Your task to perform on an android device: all mails in gmail Image 0: 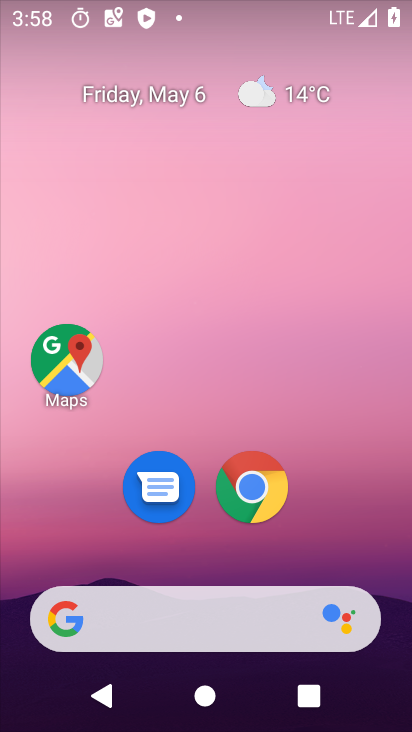
Step 0: drag from (342, 541) to (235, 36)
Your task to perform on an android device: all mails in gmail Image 1: 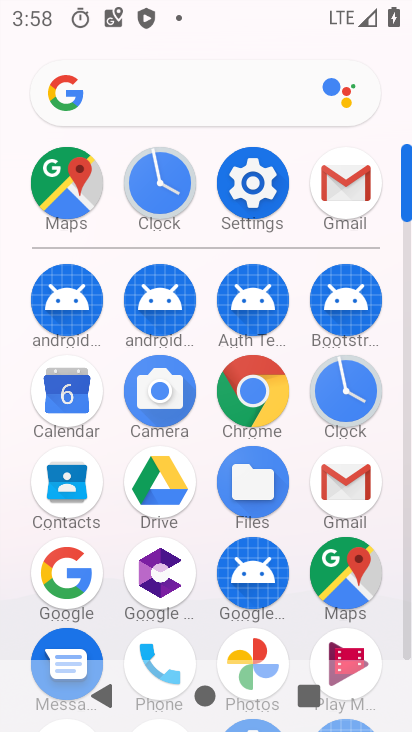
Step 1: click (358, 189)
Your task to perform on an android device: all mails in gmail Image 2: 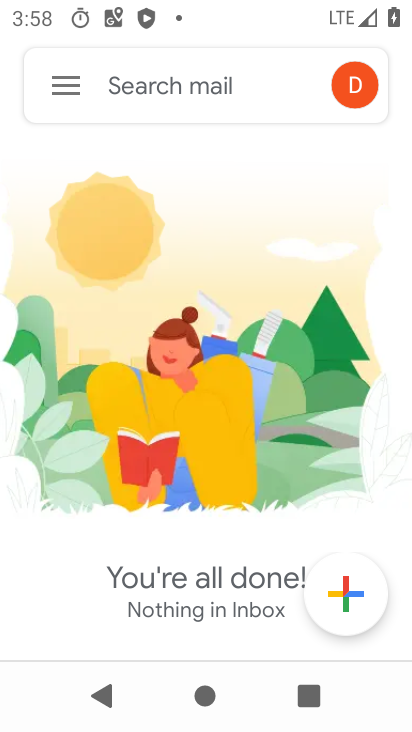
Step 2: click (68, 81)
Your task to perform on an android device: all mails in gmail Image 3: 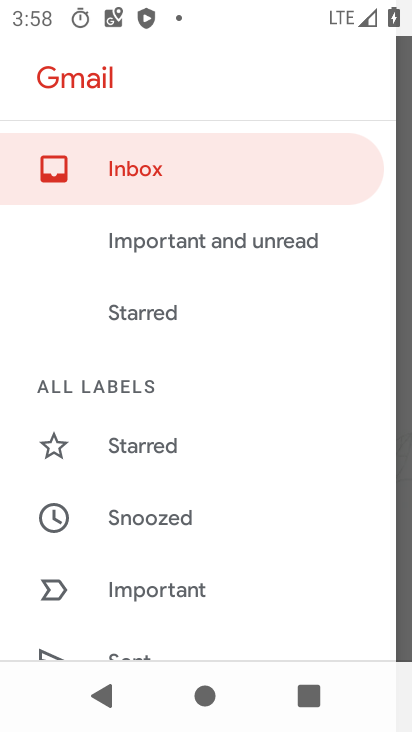
Step 3: drag from (210, 457) to (176, 199)
Your task to perform on an android device: all mails in gmail Image 4: 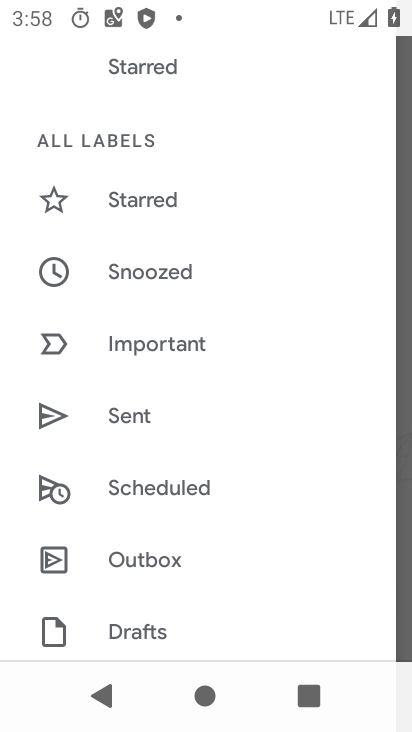
Step 4: drag from (261, 544) to (194, 167)
Your task to perform on an android device: all mails in gmail Image 5: 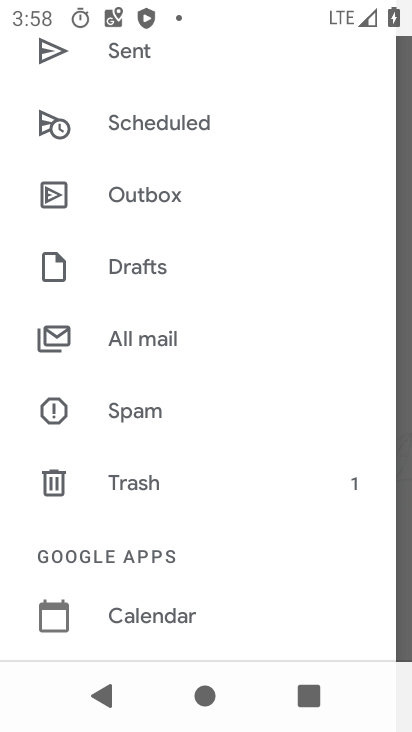
Step 5: click (151, 340)
Your task to perform on an android device: all mails in gmail Image 6: 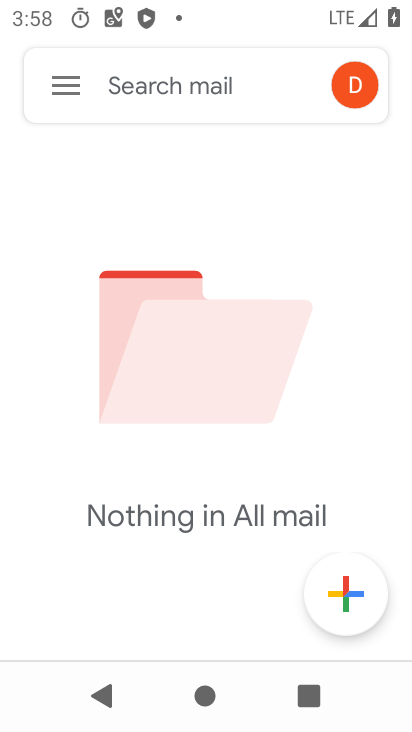
Step 6: task complete